Your task to perform on an android device: Open my contact list Image 0: 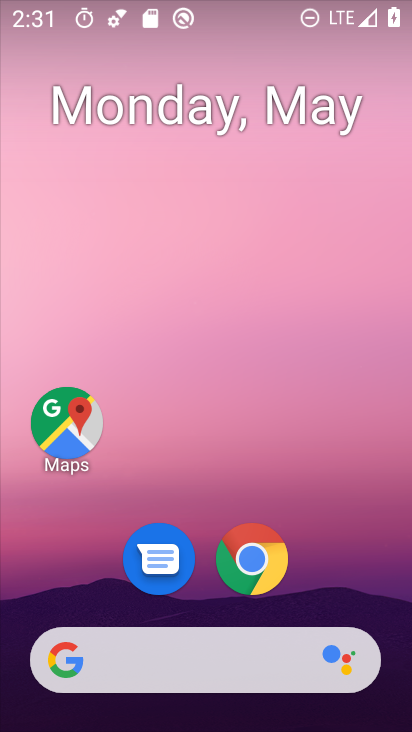
Step 0: drag from (363, 608) to (391, 0)
Your task to perform on an android device: Open my contact list Image 1: 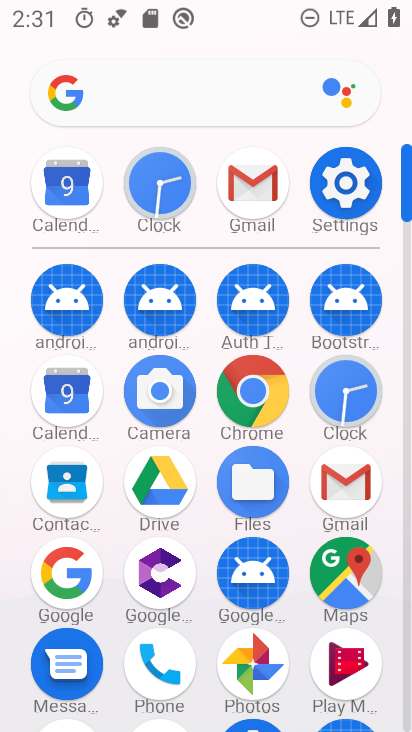
Step 1: click (74, 491)
Your task to perform on an android device: Open my contact list Image 2: 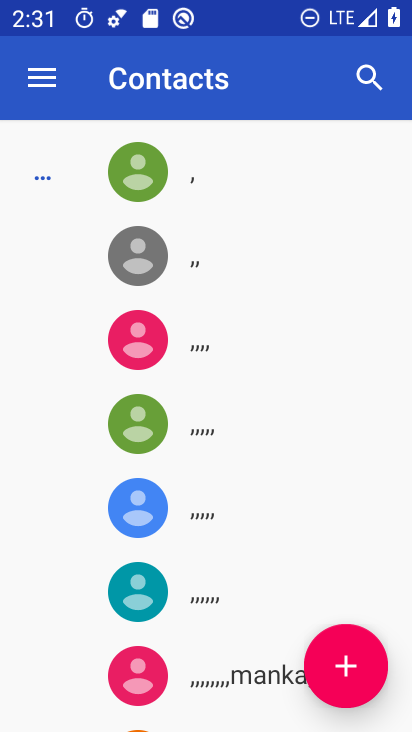
Step 2: task complete